Your task to perform on an android device: turn off translation in the chrome app Image 0: 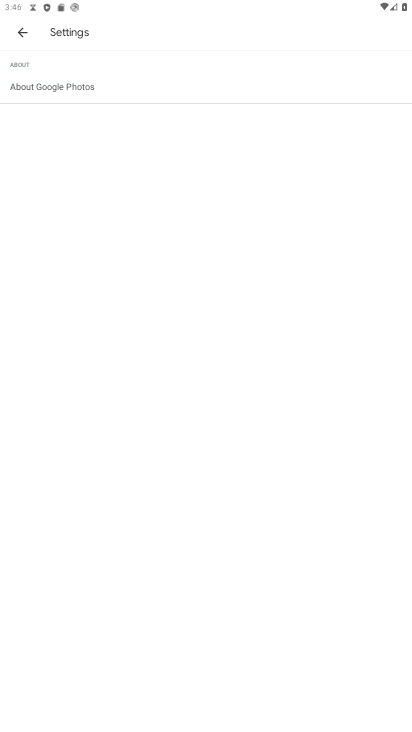
Step 0: press home button
Your task to perform on an android device: turn off translation in the chrome app Image 1: 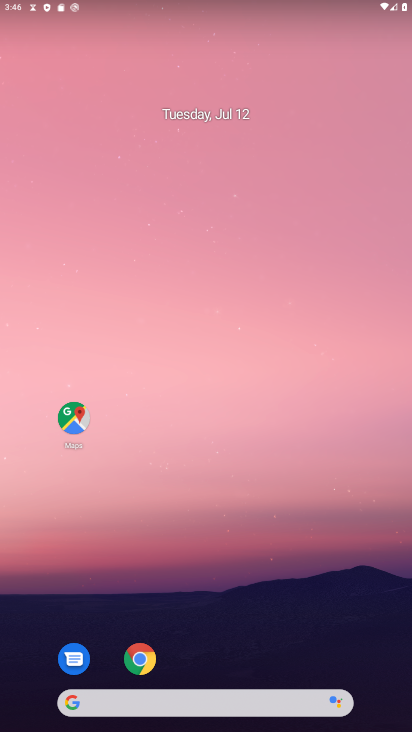
Step 1: press home button
Your task to perform on an android device: turn off translation in the chrome app Image 2: 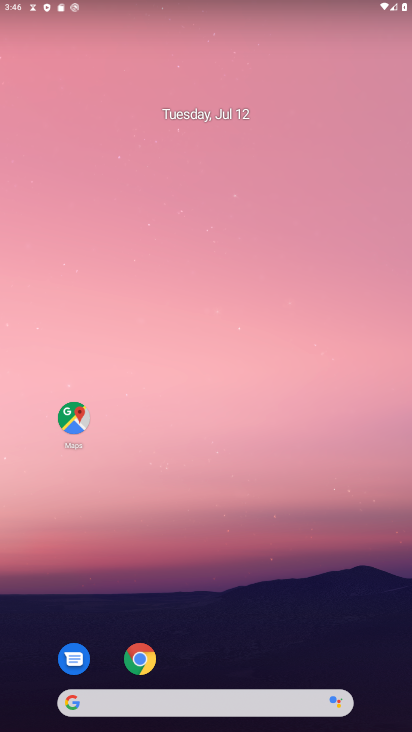
Step 2: click (136, 665)
Your task to perform on an android device: turn off translation in the chrome app Image 3: 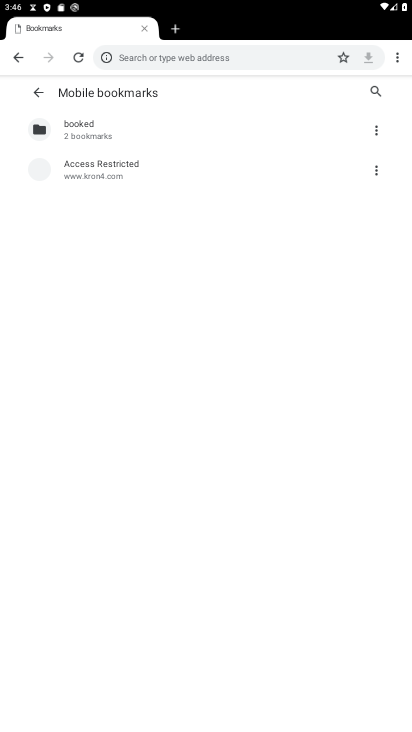
Step 3: drag from (396, 59) to (276, 264)
Your task to perform on an android device: turn off translation in the chrome app Image 4: 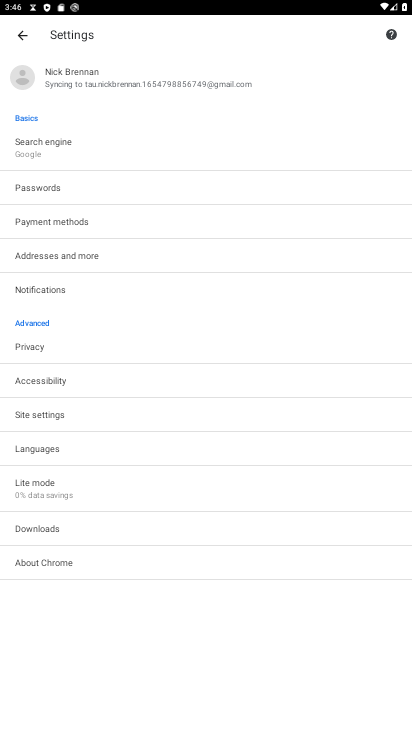
Step 4: click (38, 444)
Your task to perform on an android device: turn off translation in the chrome app Image 5: 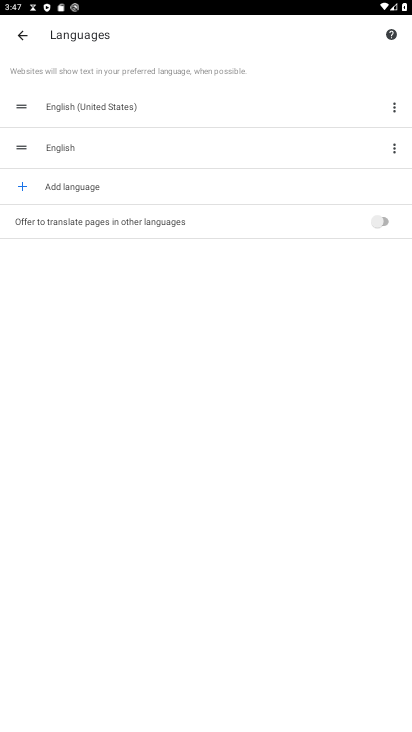
Step 5: task complete